Your task to perform on an android device: Open Google Chrome and open the bookmarks view Image 0: 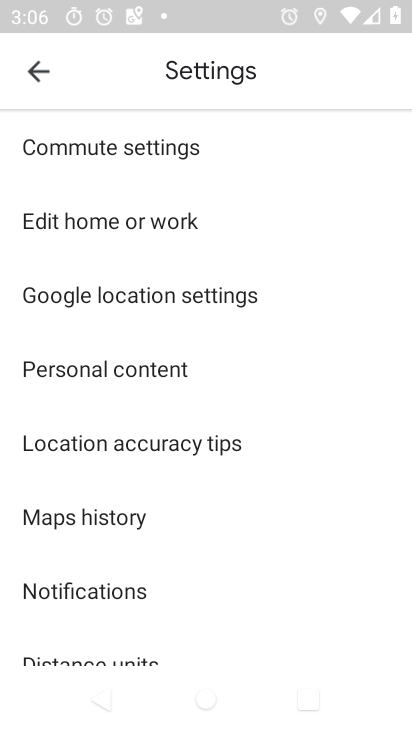
Step 0: press home button
Your task to perform on an android device: Open Google Chrome and open the bookmarks view Image 1: 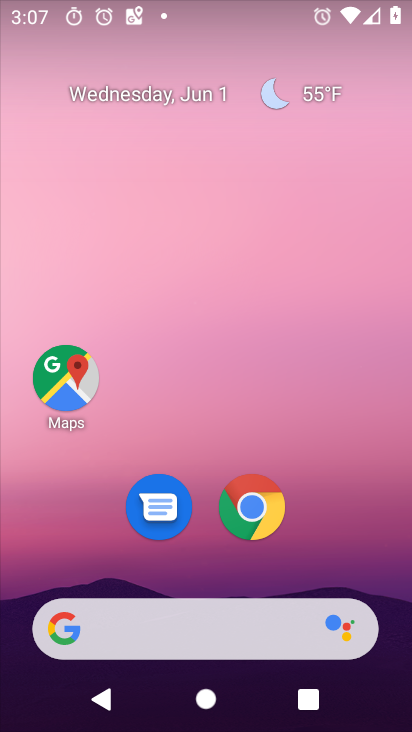
Step 1: click (258, 517)
Your task to perform on an android device: Open Google Chrome and open the bookmarks view Image 2: 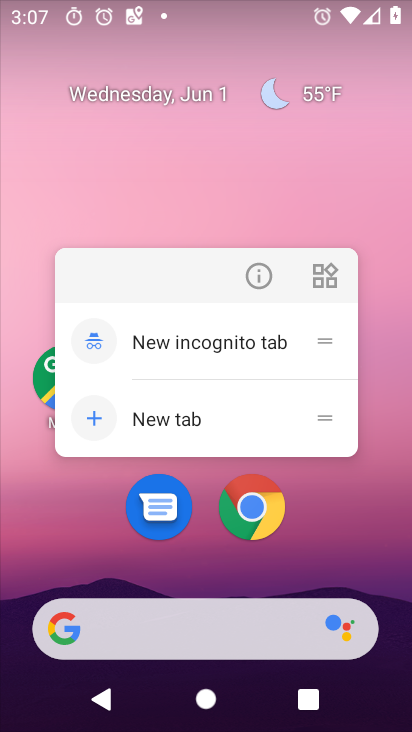
Step 2: click (258, 517)
Your task to perform on an android device: Open Google Chrome and open the bookmarks view Image 3: 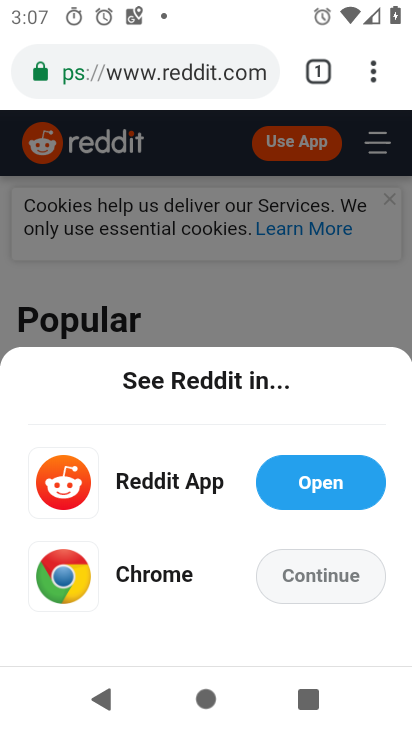
Step 3: task complete